Your task to perform on an android device: turn on the 24-hour format for clock Image 0: 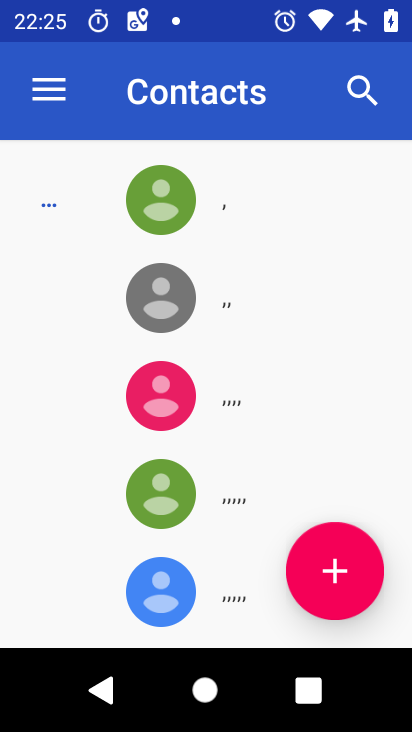
Step 0: press home button
Your task to perform on an android device: turn on the 24-hour format for clock Image 1: 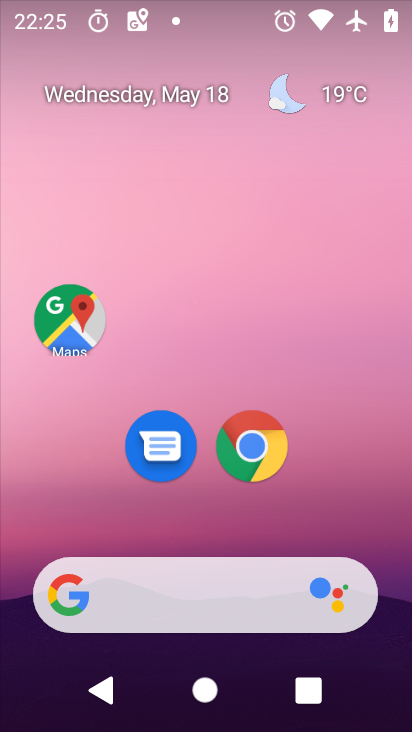
Step 1: drag from (194, 593) to (320, 162)
Your task to perform on an android device: turn on the 24-hour format for clock Image 2: 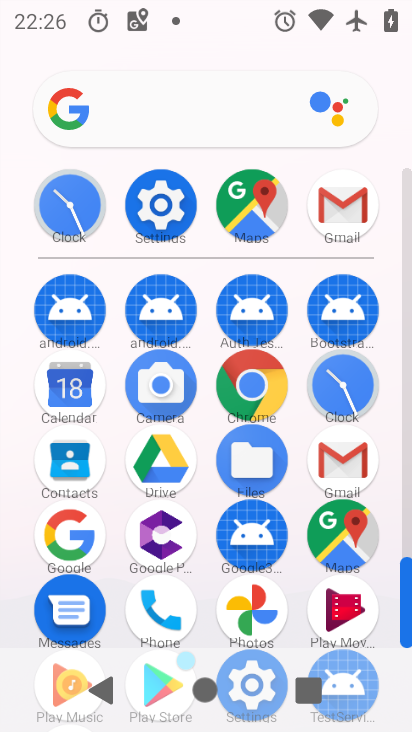
Step 2: click (82, 202)
Your task to perform on an android device: turn on the 24-hour format for clock Image 3: 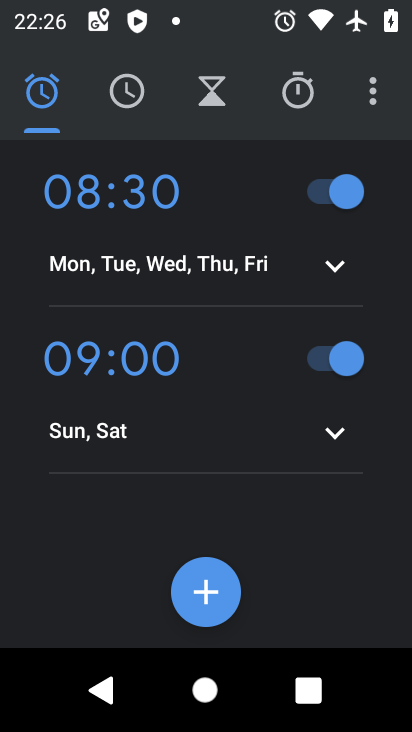
Step 3: click (379, 88)
Your task to perform on an android device: turn on the 24-hour format for clock Image 4: 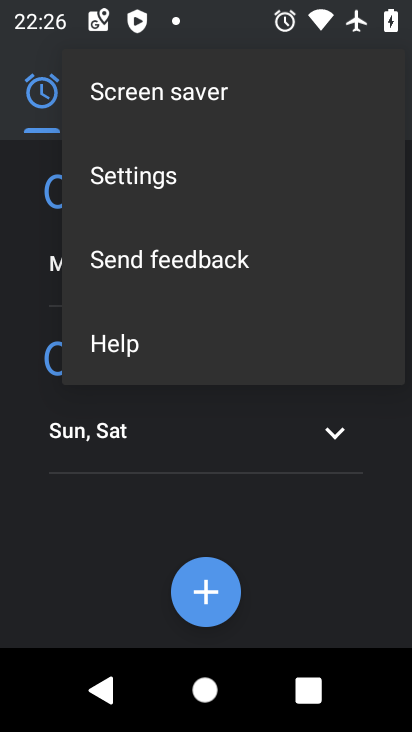
Step 4: click (186, 171)
Your task to perform on an android device: turn on the 24-hour format for clock Image 5: 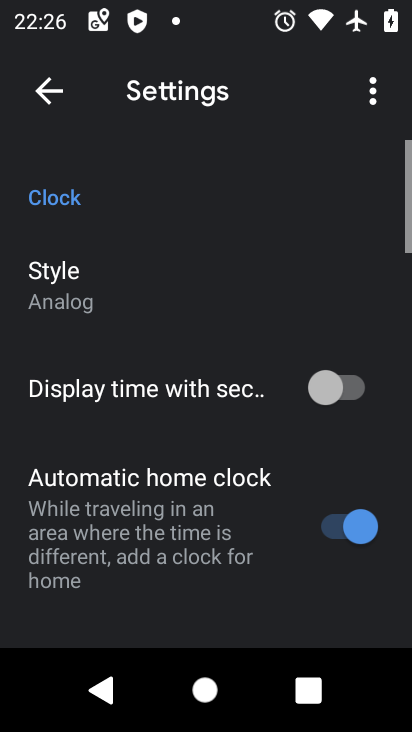
Step 5: drag from (173, 548) to (324, 97)
Your task to perform on an android device: turn on the 24-hour format for clock Image 6: 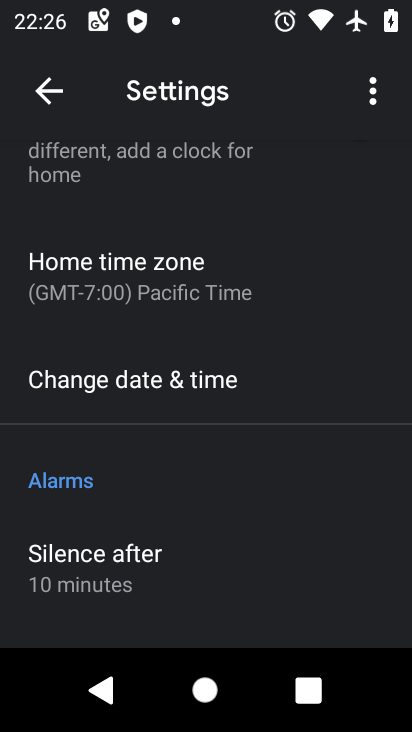
Step 6: drag from (183, 435) to (252, 208)
Your task to perform on an android device: turn on the 24-hour format for clock Image 7: 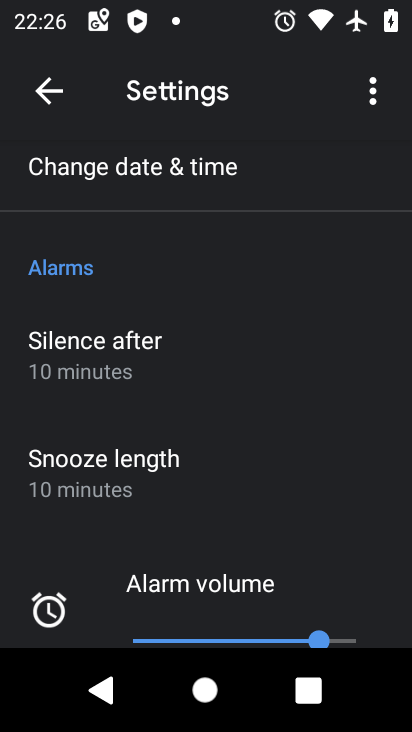
Step 7: drag from (171, 501) to (390, 14)
Your task to perform on an android device: turn on the 24-hour format for clock Image 8: 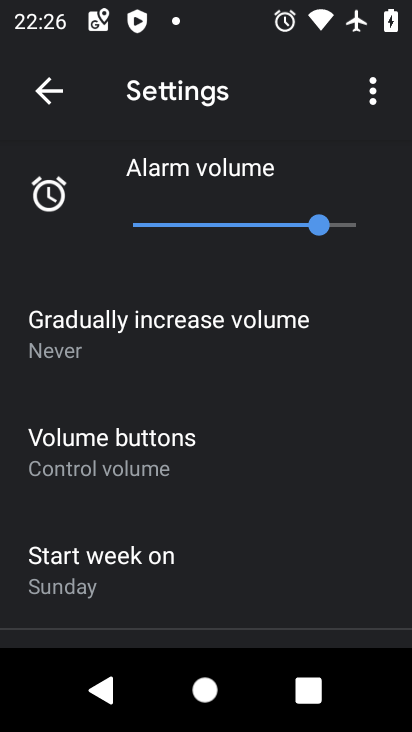
Step 8: drag from (289, 308) to (215, 575)
Your task to perform on an android device: turn on the 24-hour format for clock Image 9: 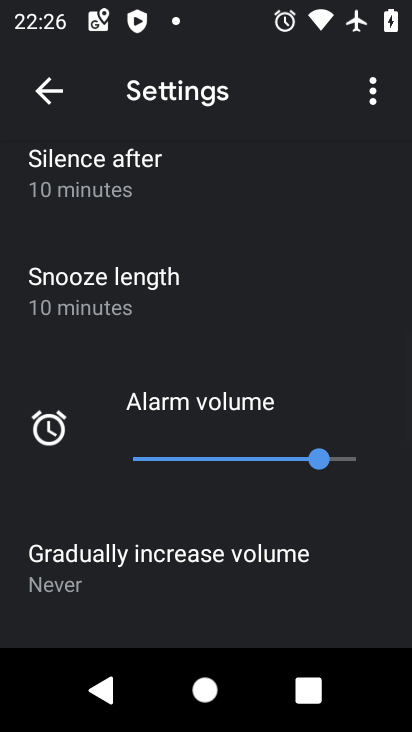
Step 9: drag from (267, 234) to (198, 566)
Your task to perform on an android device: turn on the 24-hour format for clock Image 10: 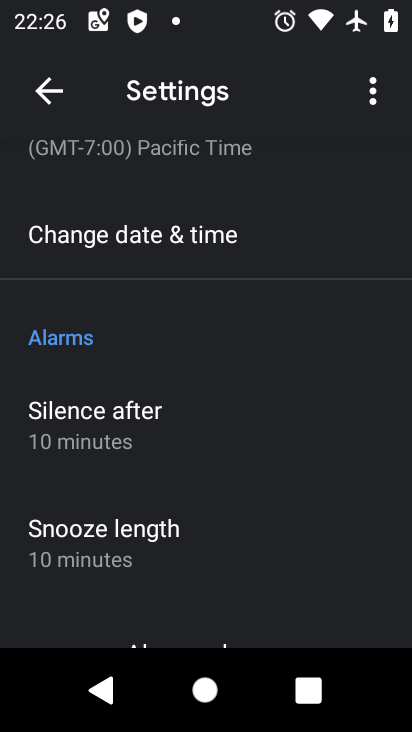
Step 10: click (164, 237)
Your task to perform on an android device: turn on the 24-hour format for clock Image 11: 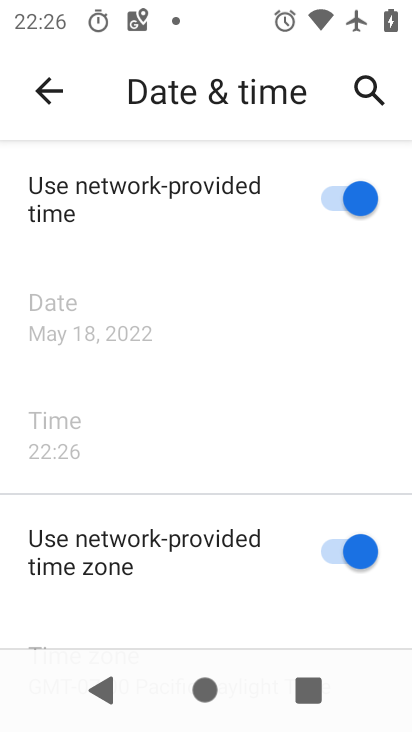
Step 11: task complete